Your task to perform on an android device: Play the last video I watched on Youtube Image 0: 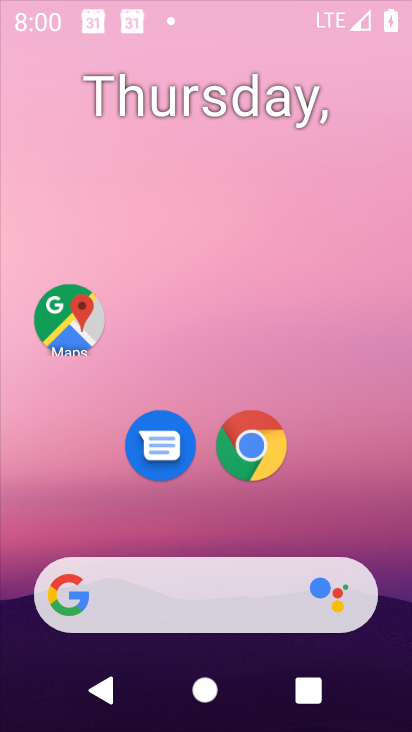
Step 0: drag from (197, 526) to (210, 169)
Your task to perform on an android device: Play the last video I watched on Youtube Image 1: 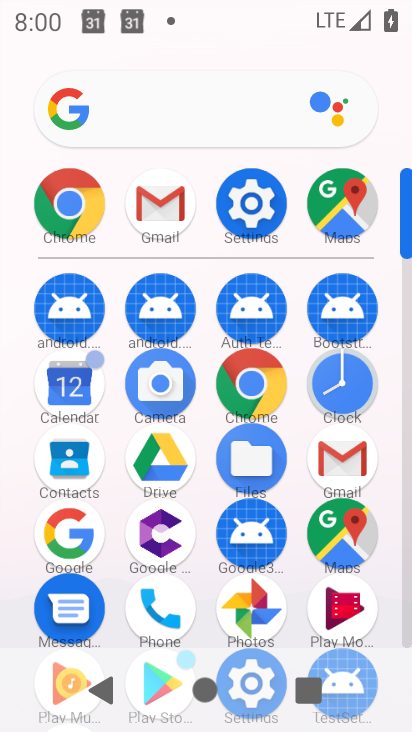
Step 1: drag from (200, 605) to (239, 224)
Your task to perform on an android device: Play the last video I watched on Youtube Image 2: 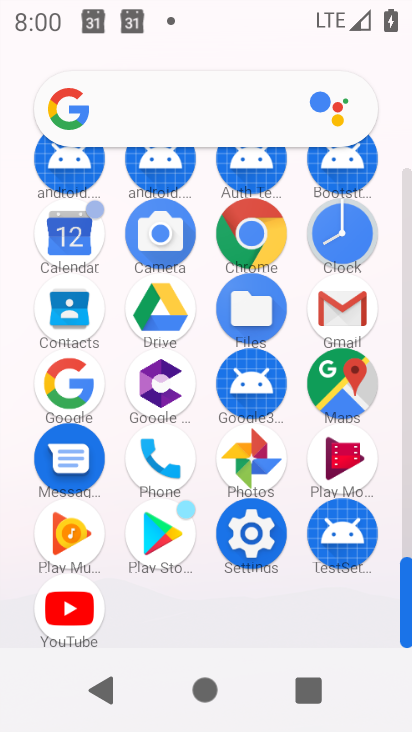
Step 2: click (76, 601)
Your task to perform on an android device: Play the last video I watched on Youtube Image 3: 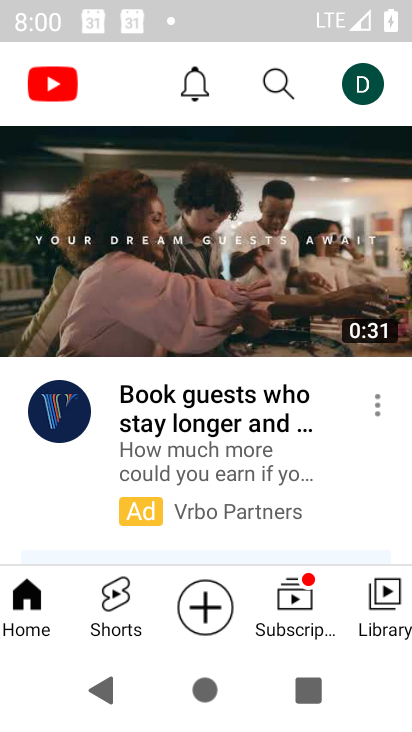
Step 3: drag from (280, 484) to (344, 159)
Your task to perform on an android device: Play the last video I watched on Youtube Image 4: 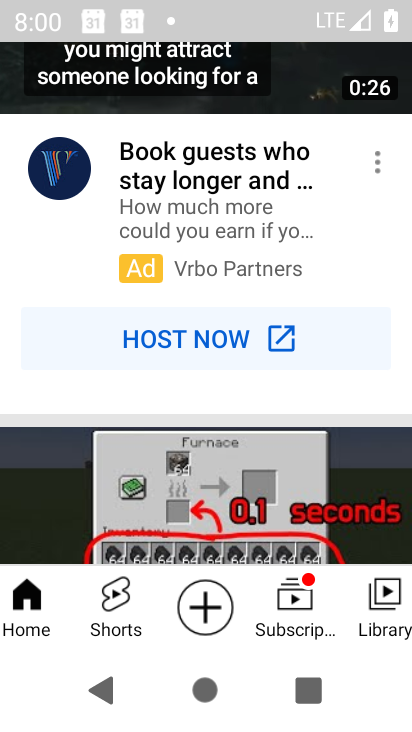
Step 4: click (393, 604)
Your task to perform on an android device: Play the last video I watched on Youtube Image 5: 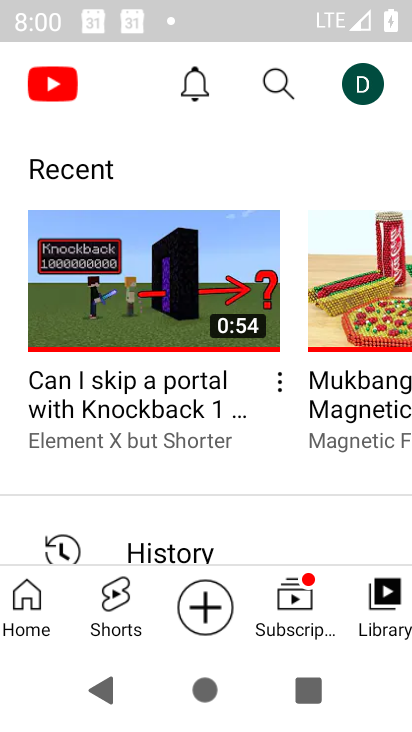
Step 5: click (195, 274)
Your task to perform on an android device: Play the last video I watched on Youtube Image 6: 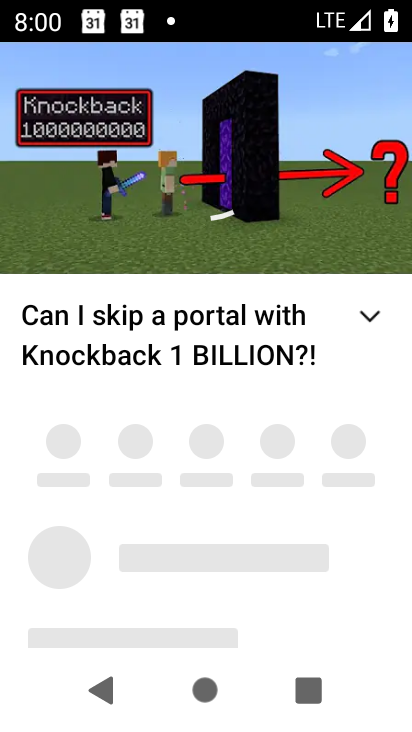
Step 6: drag from (306, 432) to (372, 229)
Your task to perform on an android device: Play the last video I watched on Youtube Image 7: 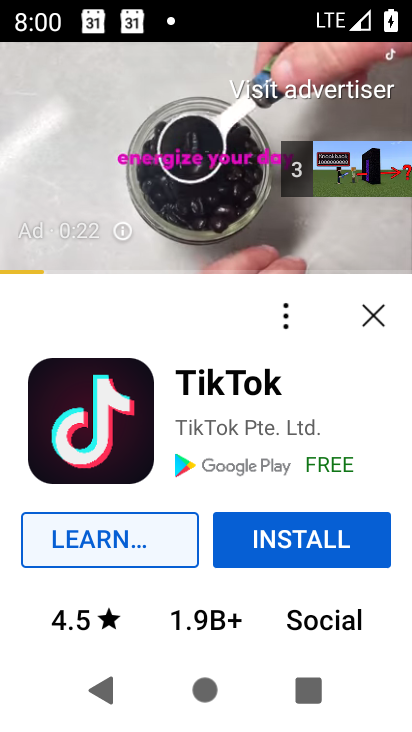
Step 7: click (381, 326)
Your task to perform on an android device: Play the last video I watched on Youtube Image 8: 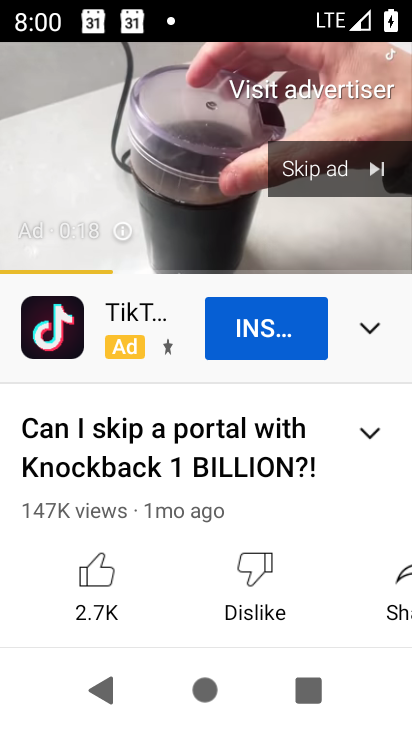
Step 8: click (334, 154)
Your task to perform on an android device: Play the last video I watched on Youtube Image 9: 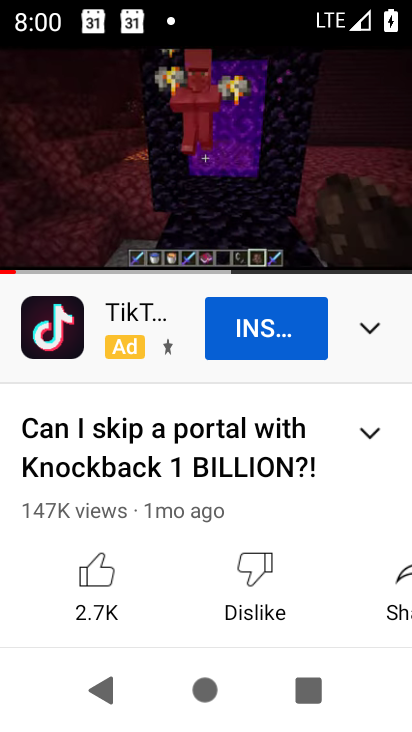
Step 9: task complete